Your task to perform on an android device: Go to network settings Image 0: 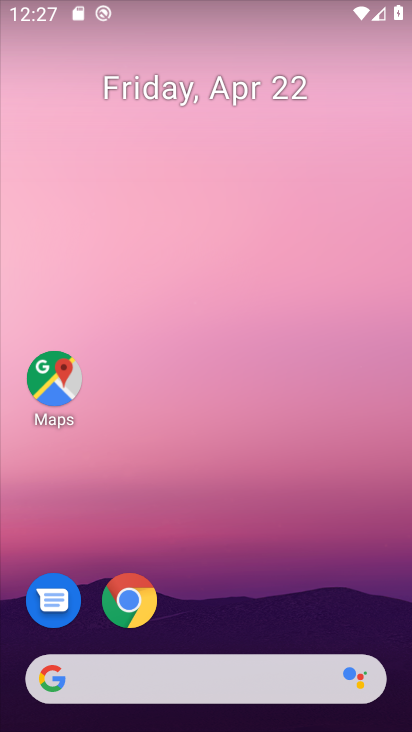
Step 0: drag from (178, 650) to (316, 76)
Your task to perform on an android device: Go to network settings Image 1: 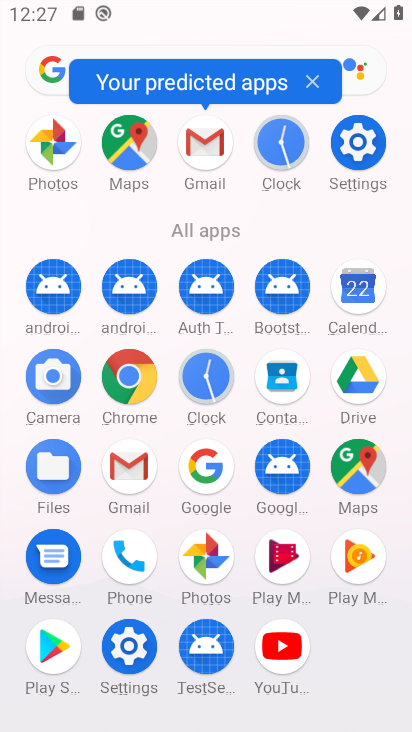
Step 1: click (148, 657)
Your task to perform on an android device: Go to network settings Image 2: 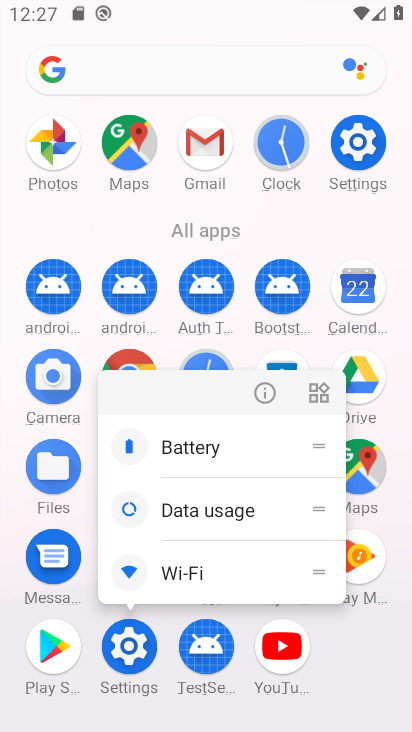
Step 2: click (132, 652)
Your task to perform on an android device: Go to network settings Image 3: 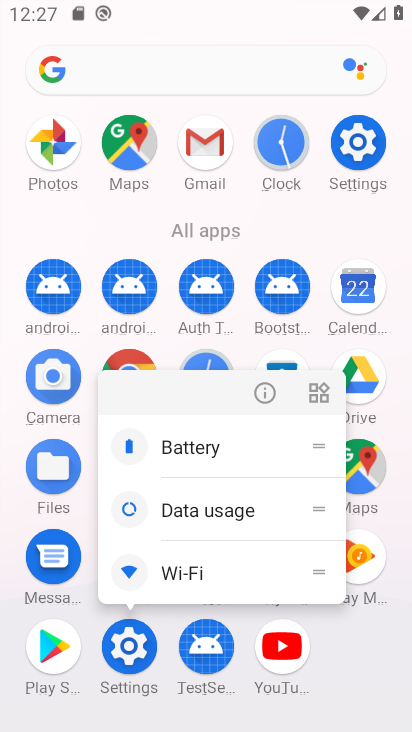
Step 3: click (135, 664)
Your task to perform on an android device: Go to network settings Image 4: 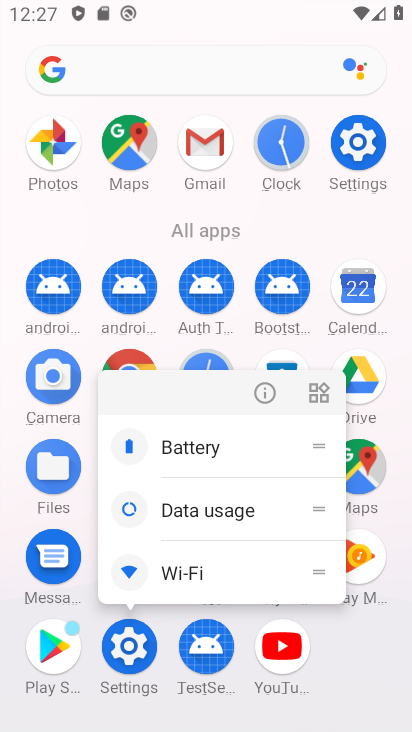
Step 4: click (134, 674)
Your task to perform on an android device: Go to network settings Image 5: 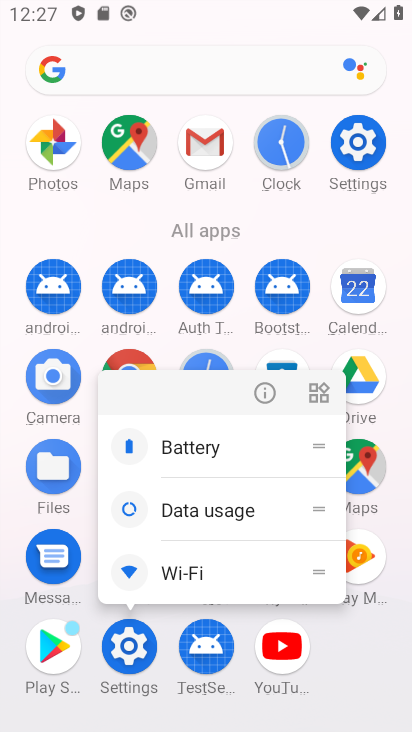
Step 5: click (121, 656)
Your task to perform on an android device: Go to network settings Image 6: 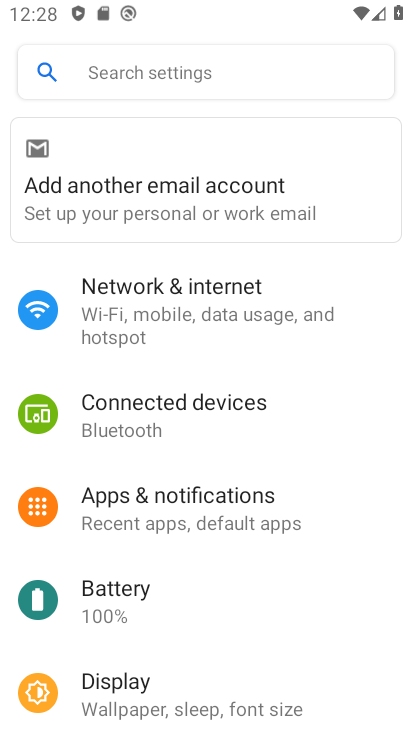
Step 6: click (223, 308)
Your task to perform on an android device: Go to network settings Image 7: 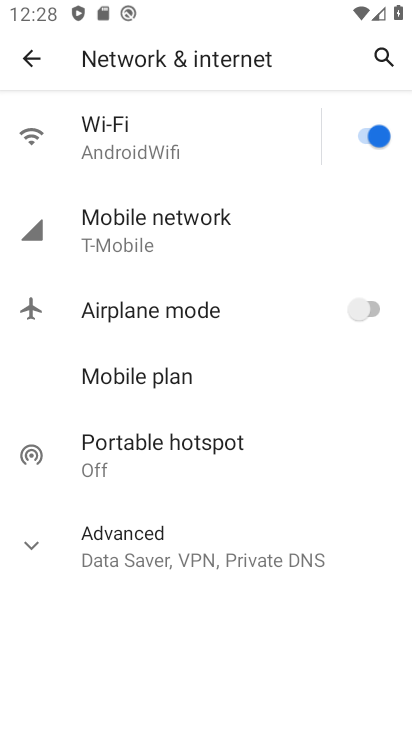
Step 7: task complete